Your task to perform on an android device: Is it going to rain tomorrow? Image 0: 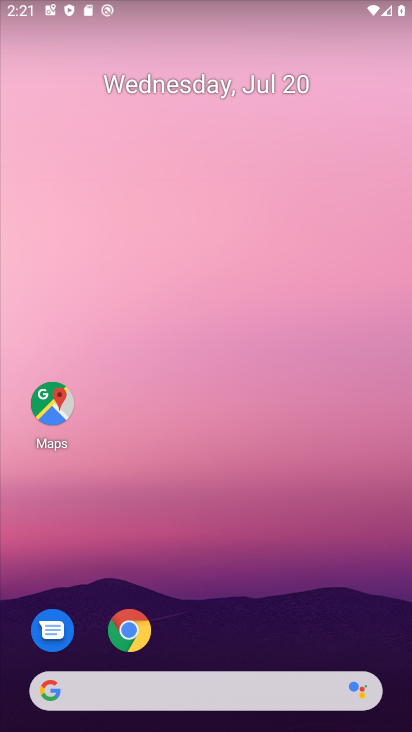
Step 0: click (226, 690)
Your task to perform on an android device: Is it going to rain tomorrow? Image 1: 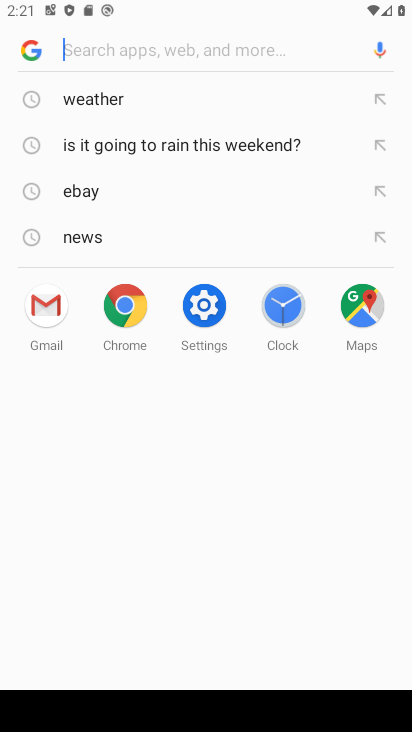
Step 1: click (142, 100)
Your task to perform on an android device: Is it going to rain tomorrow? Image 2: 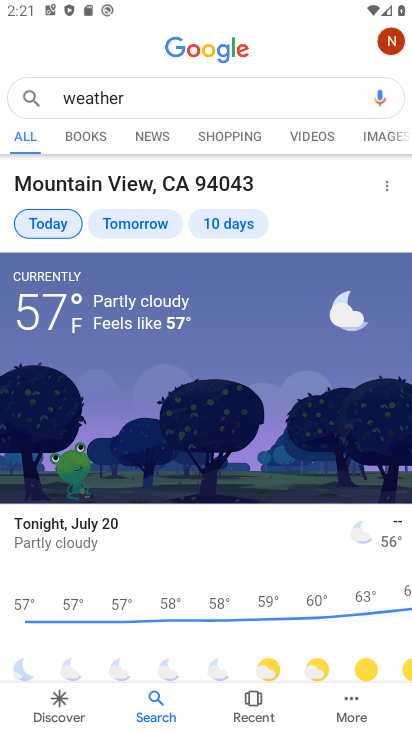
Step 2: click (136, 225)
Your task to perform on an android device: Is it going to rain tomorrow? Image 3: 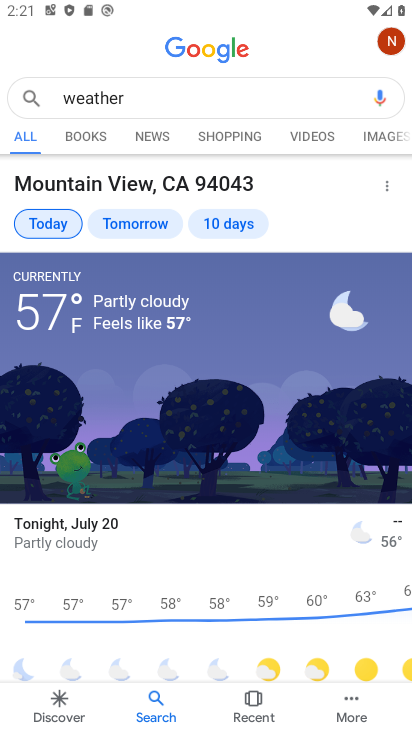
Step 3: click (140, 225)
Your task to perform on an android device: Is it going to rain tomorrow? Image 4: 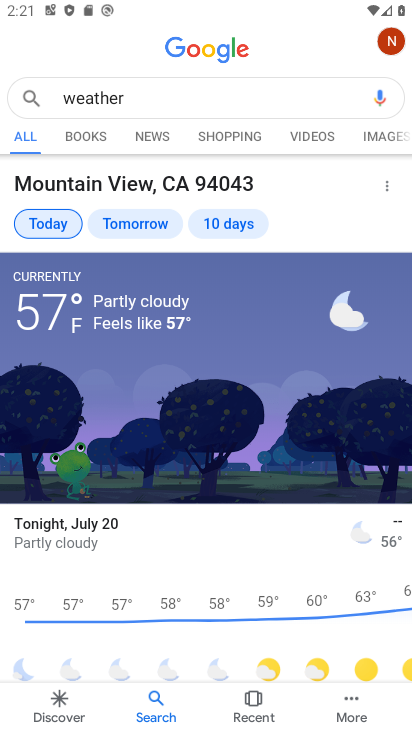
Step 4: task complete